Your task to perform on an android device: Show the shopping cart on ebay. Add "razer thresher" to the cart on ebay, then select checkout. Image 0: 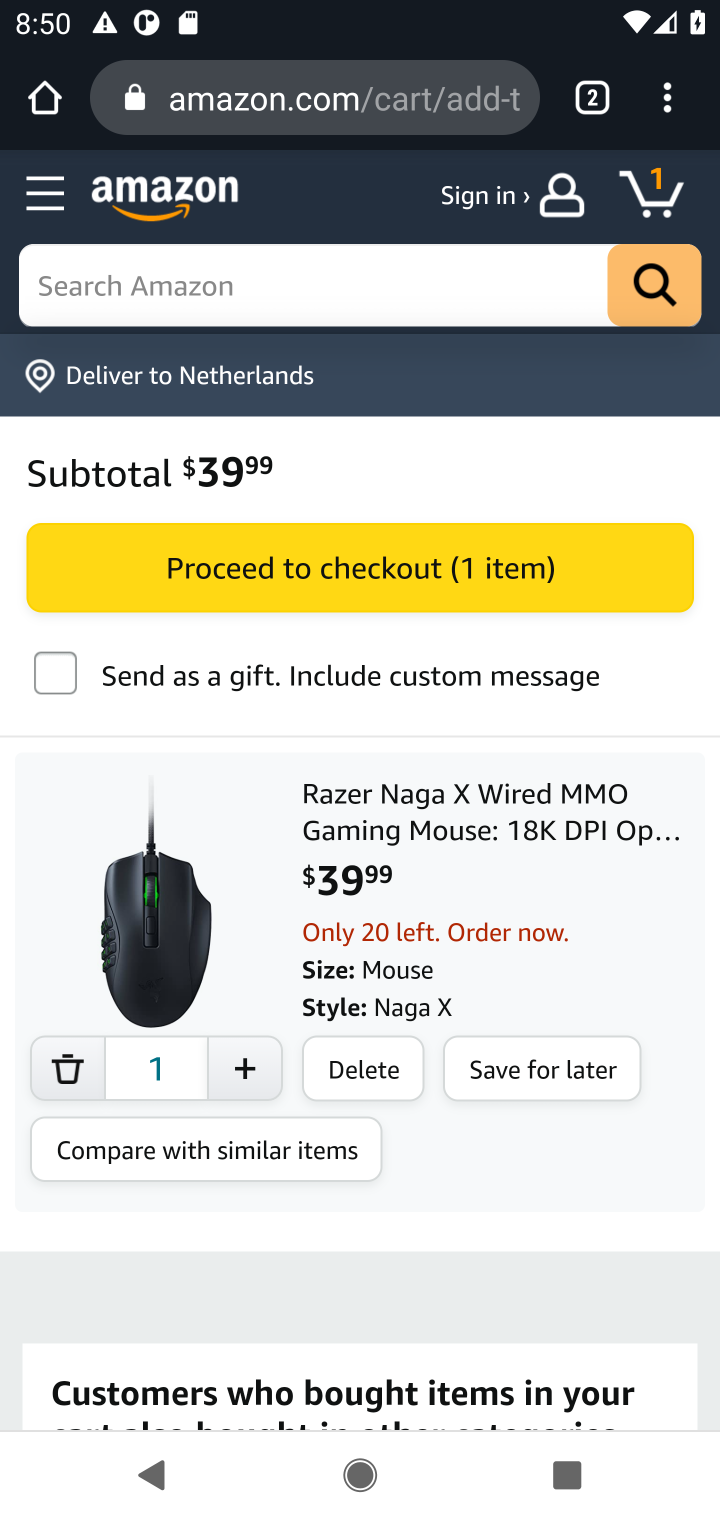
Step 0: click (250, 95)
Your task to perform on an android device: Show the shopping cart on ebay. Add "razer thresher" to the cart on ebay, then select checkout. Image 1: 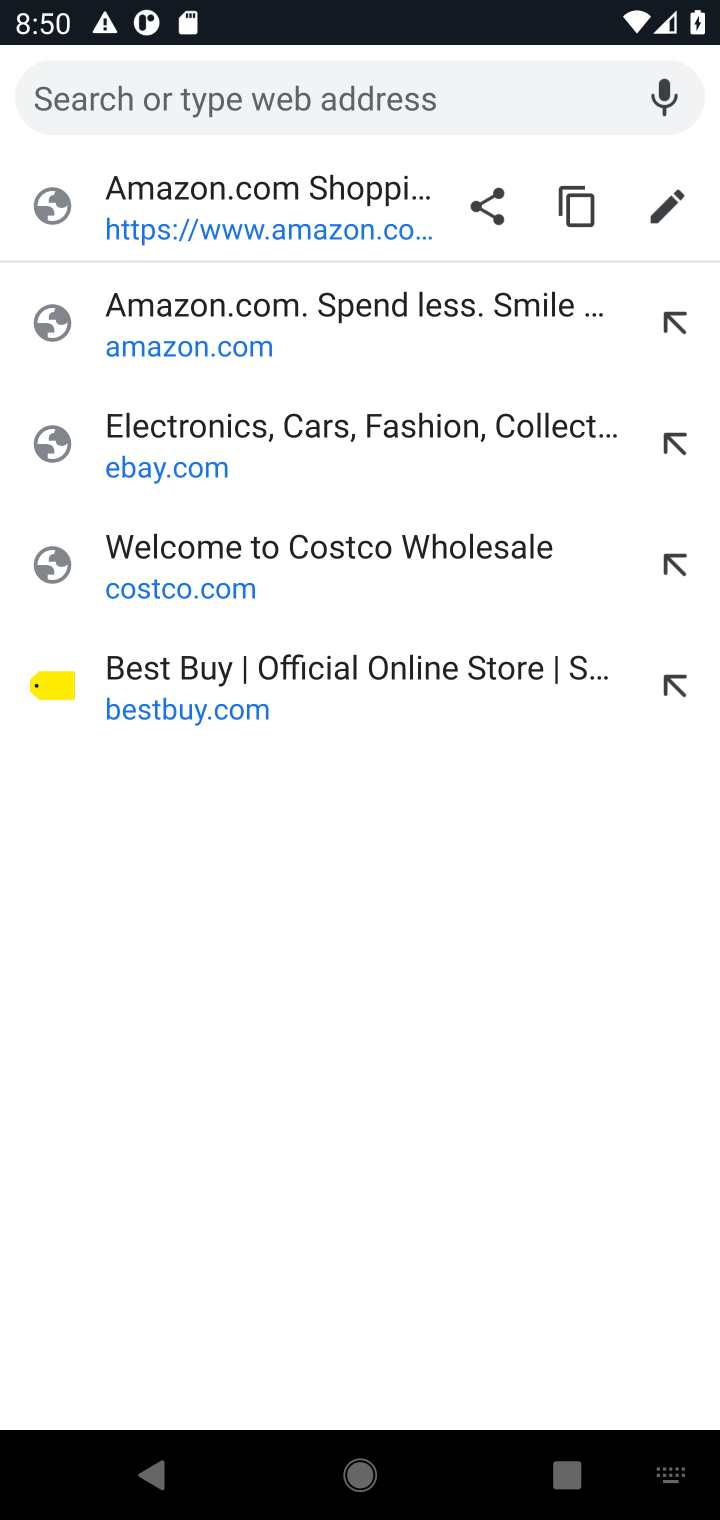
Step 1: click (158, 453)
Your task to perform on an android device: Show the shopping cart on ebay. Add "razer thresher" to the cart on ebay, then select checkout. Image 2: 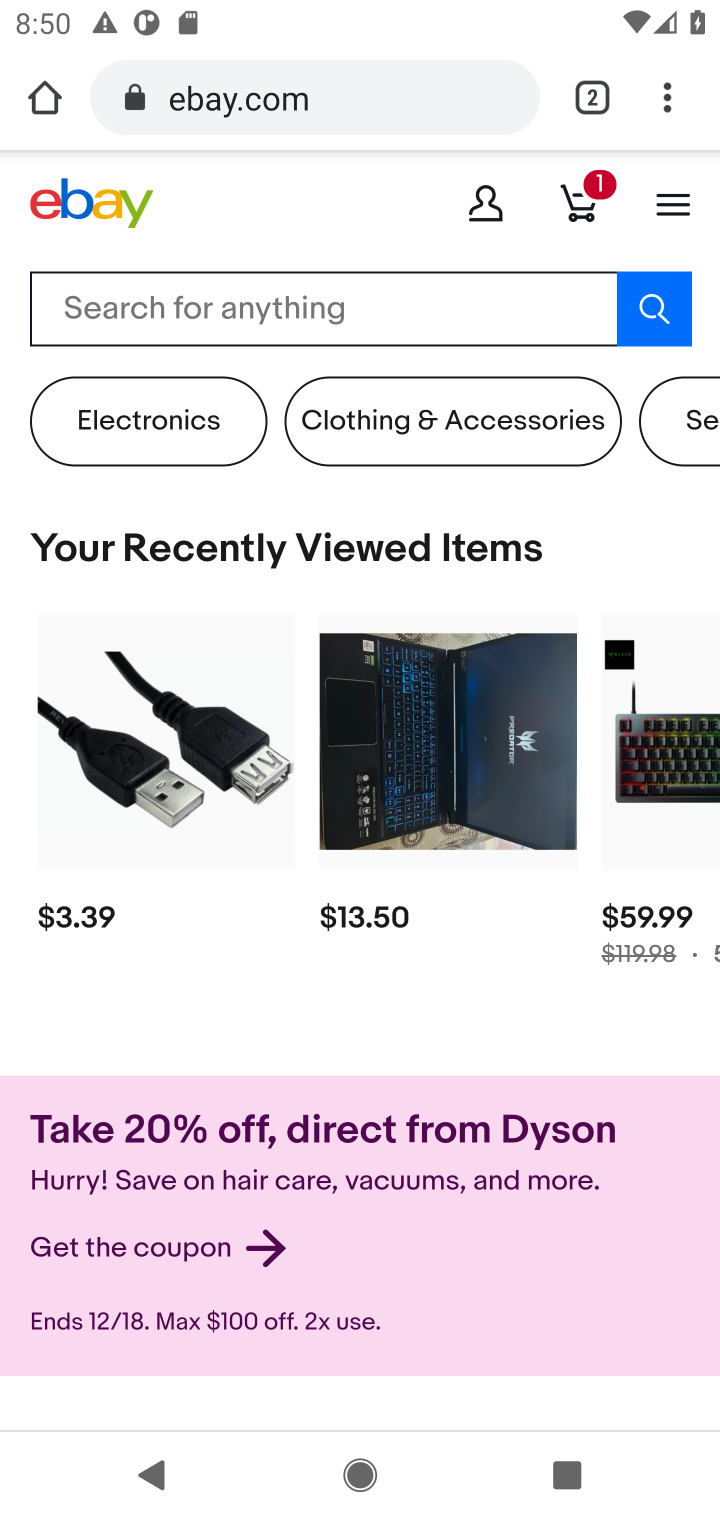
Step 2: click (586, 199)
Your task to perform on an android device: Show the shopping cart on ebay. Add "razer thresher" to the cart on ebay, then select checkout. Image 3: 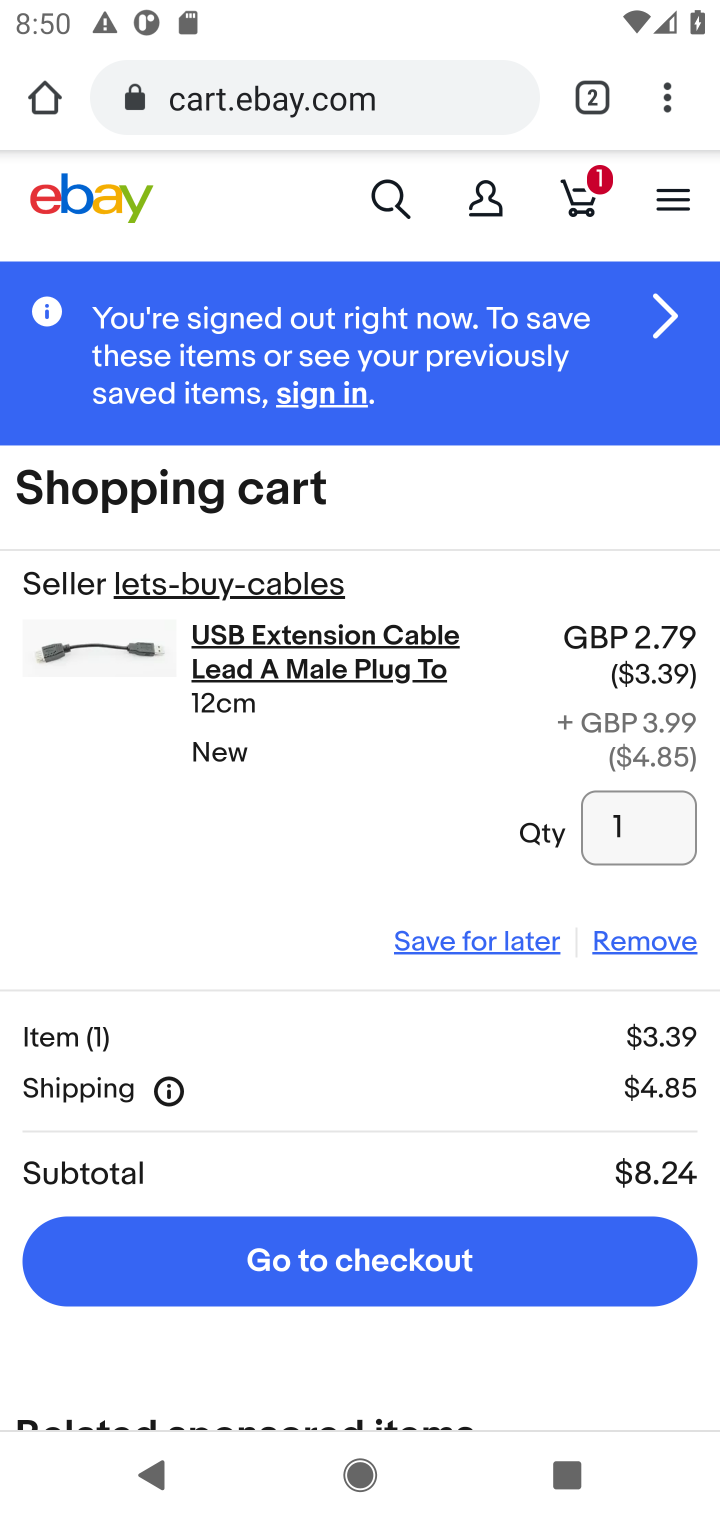
Step 3: click (383, 203)
Your task to perform on an android device: Show the shopping cart on ebay. Add "razer thresher" to the cart on ebay, then select checkout. Image 4: 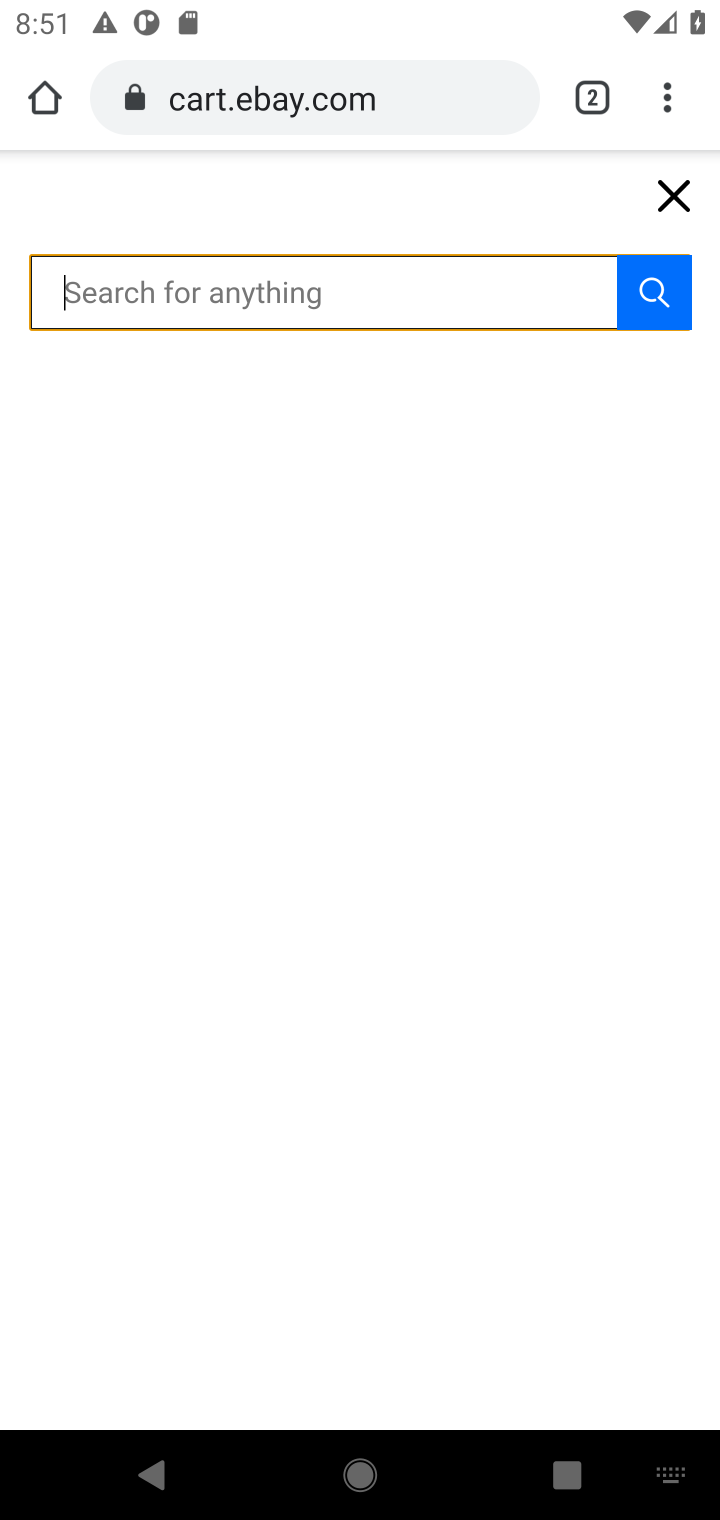
Step 4: type "razer thresher"
Your task to perform on an android device: Show the shopping cart on ebay. Add "razer thresher" to the cart on ebay, then select checkout. Image 5: 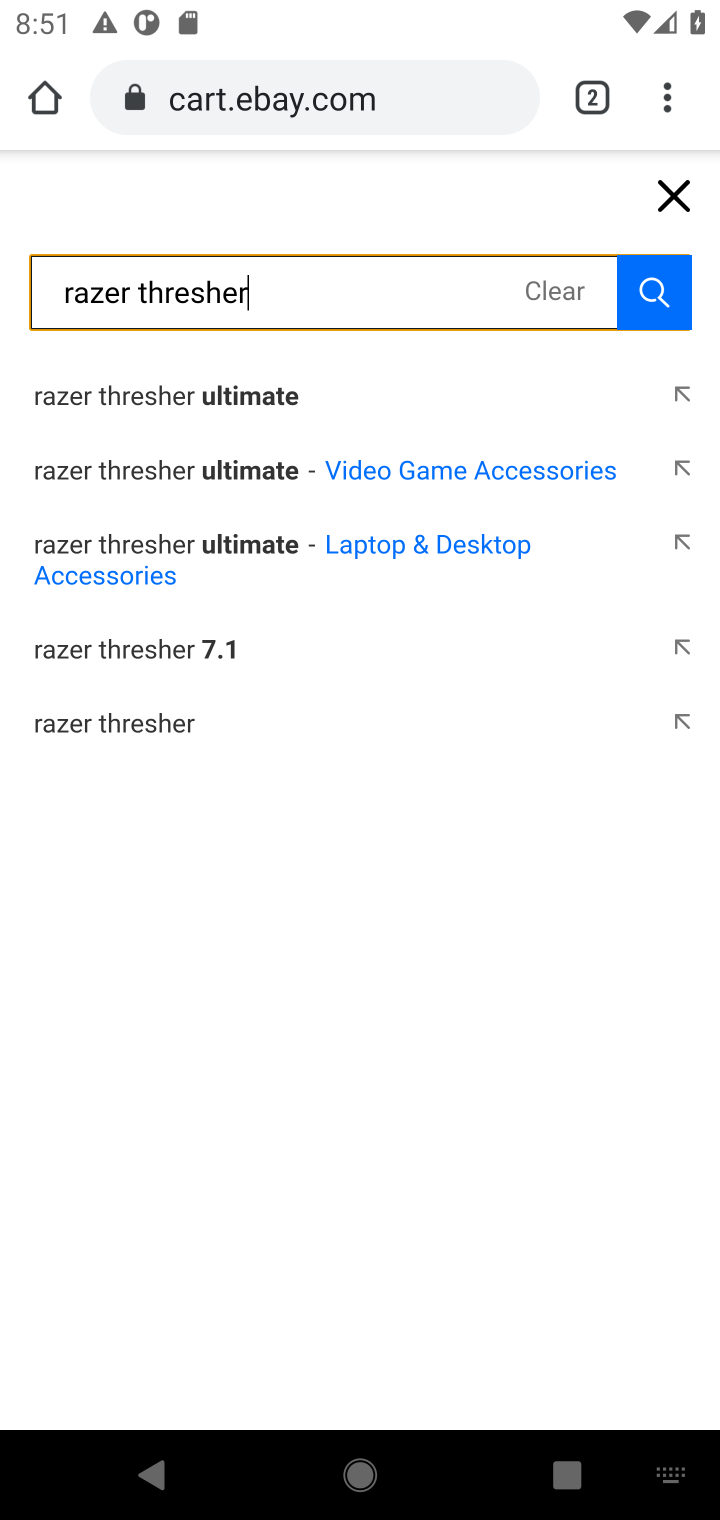
Step 5: click (149, 736)
Your task to perform on an android device: Show the shopping cart on ebay. Add "razer thresher" to the cart on ebay, then select checkout. Image 6: 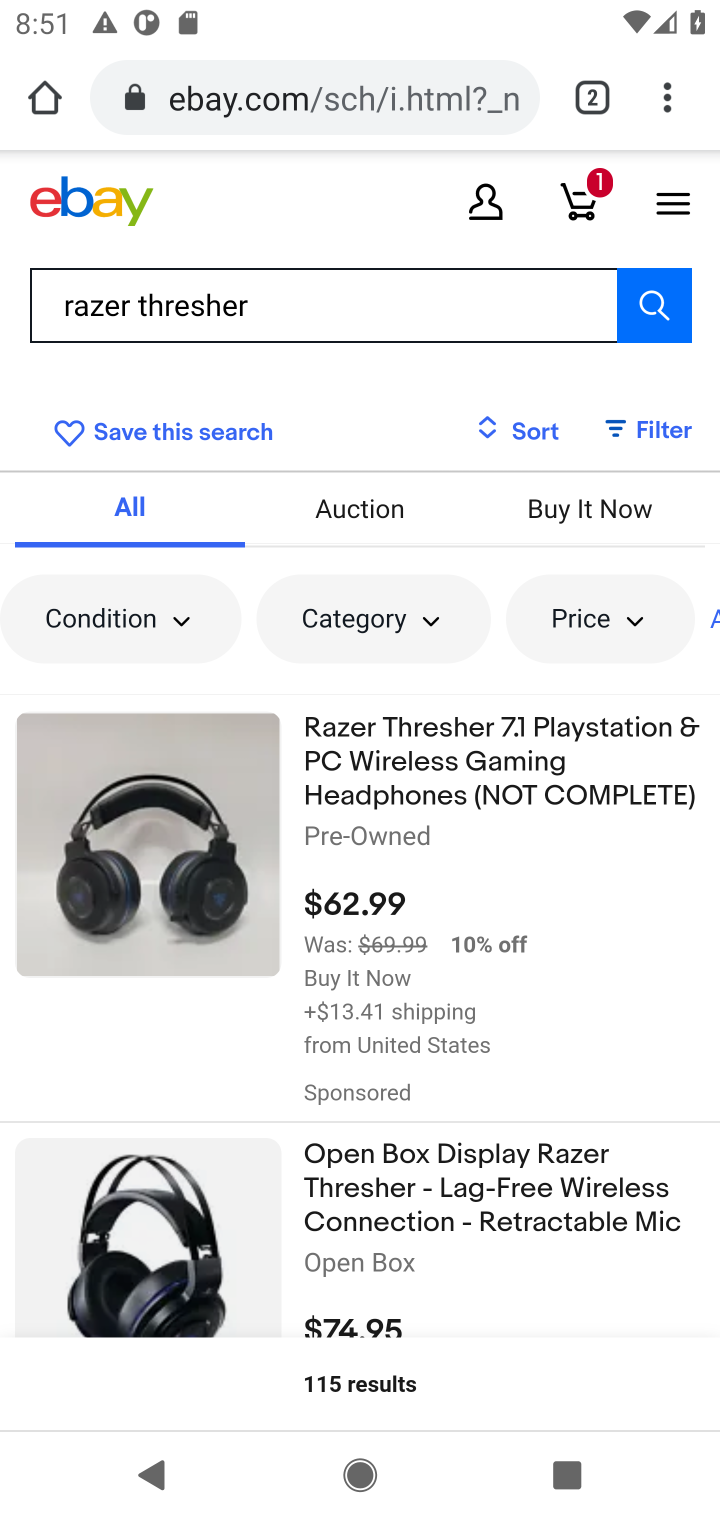
Step 6: click (361, 769)
Your task to perform on an android device: Show the shopping cart on ebay. Add "razer thresher" to the cart on ebay, then select checkout. Image 7: 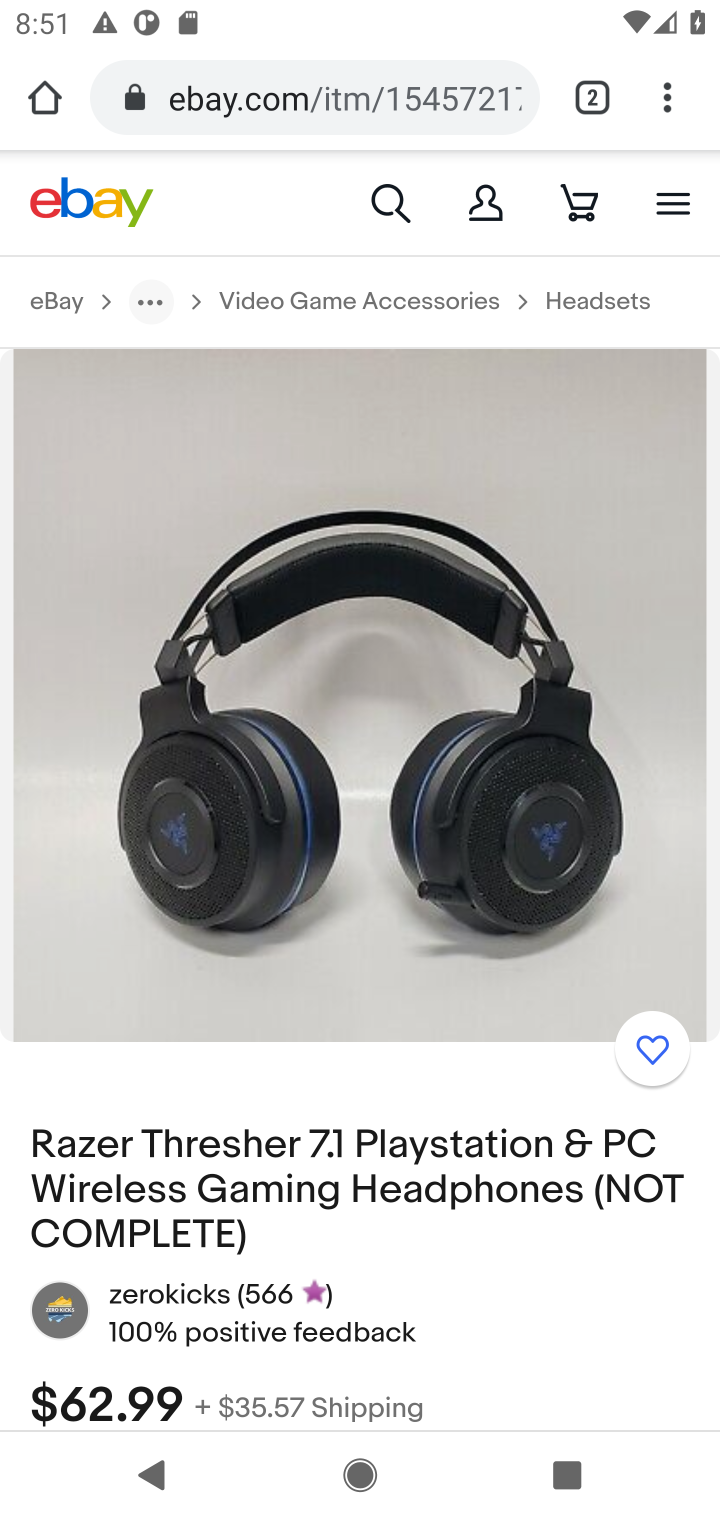
Step 7: drag from (323, 1142) to (295, 304)
Your task to perform on an android device: Show the shopping cart on ebay. Add "razer thresher" to the cart on ebay, then select checkout. Image 8: 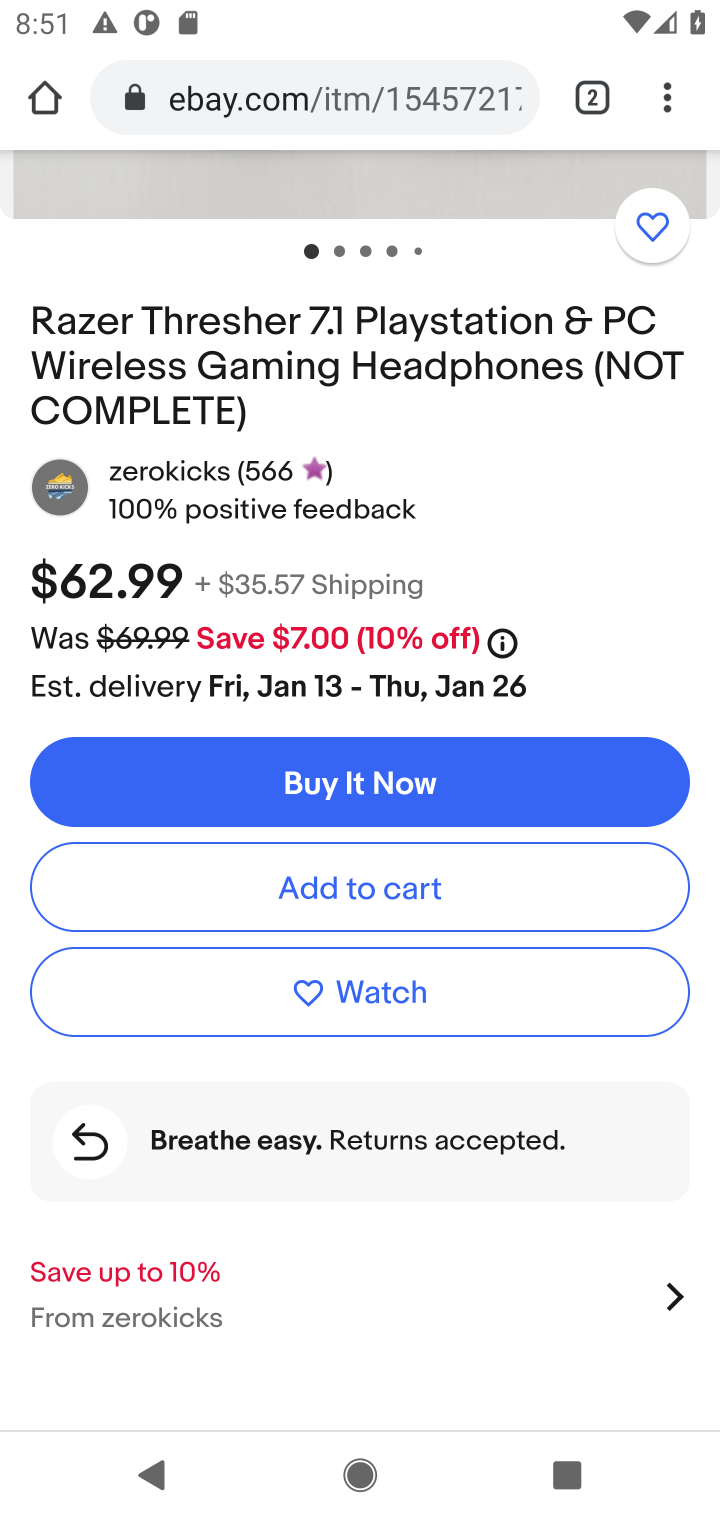
Step 8: click (337, 889)
Your task to perform on an android device: Show the shopping cart on ebay. Add "razer thresher" to the cart on ebay, then select checkout. Image 9: 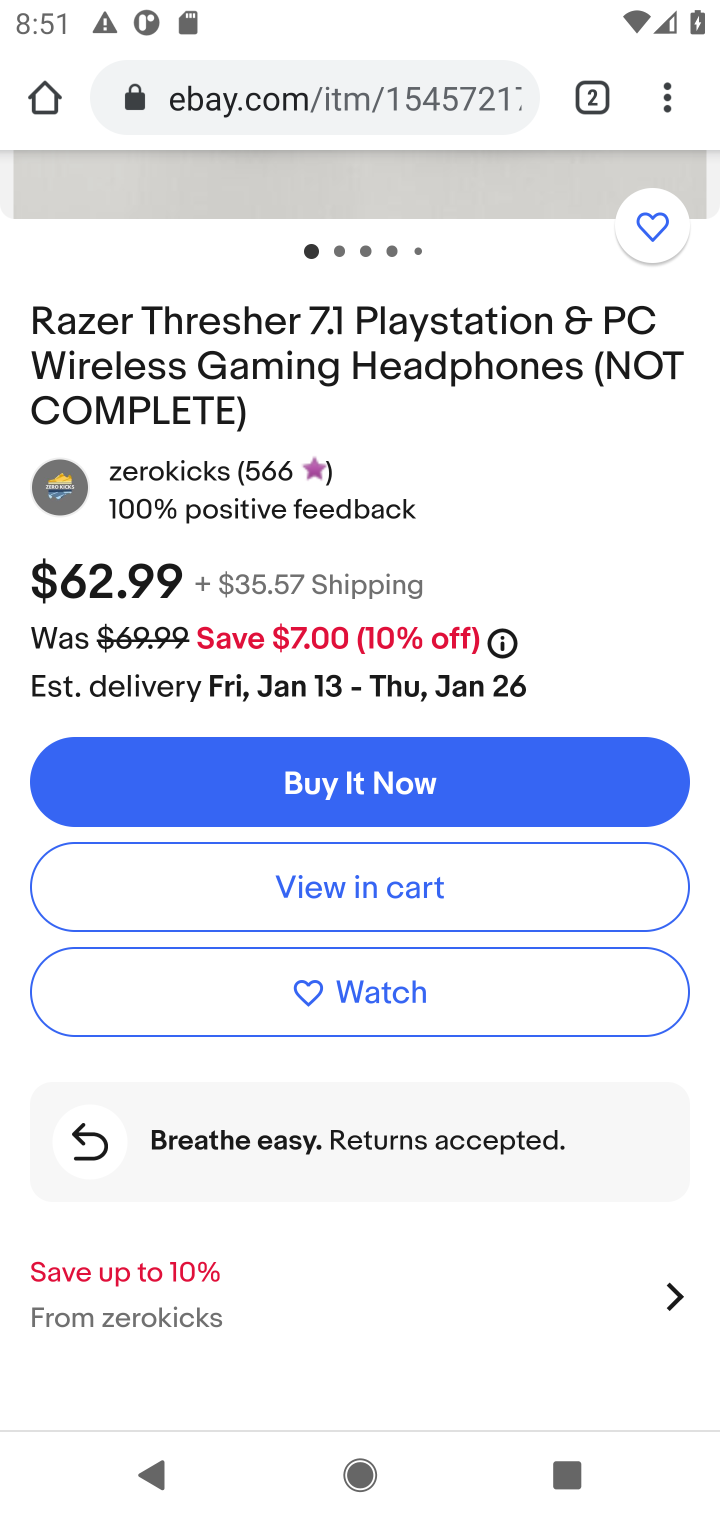
Step 9: click (337, 889)
Your task to perform on an android device: Show the shopping cart on ebay. Add "razer thresher" to the cart on ebay, then select checkout. Image 10: 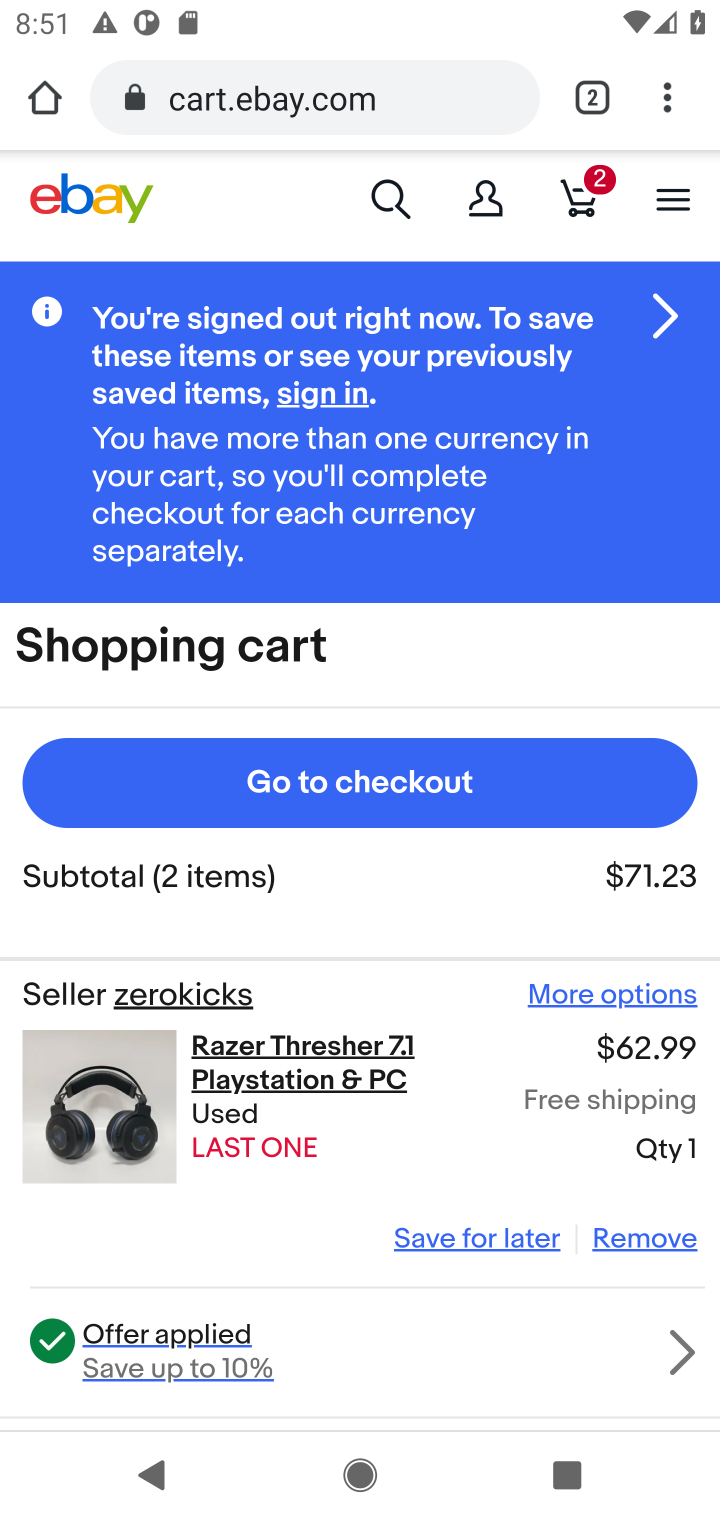
Step 10: click (331, 805)
Your task to perform on an android device: Show the shopping cart on ebay. Add "razer thresher" to the cart on ebay, then select checkout. Image 11: 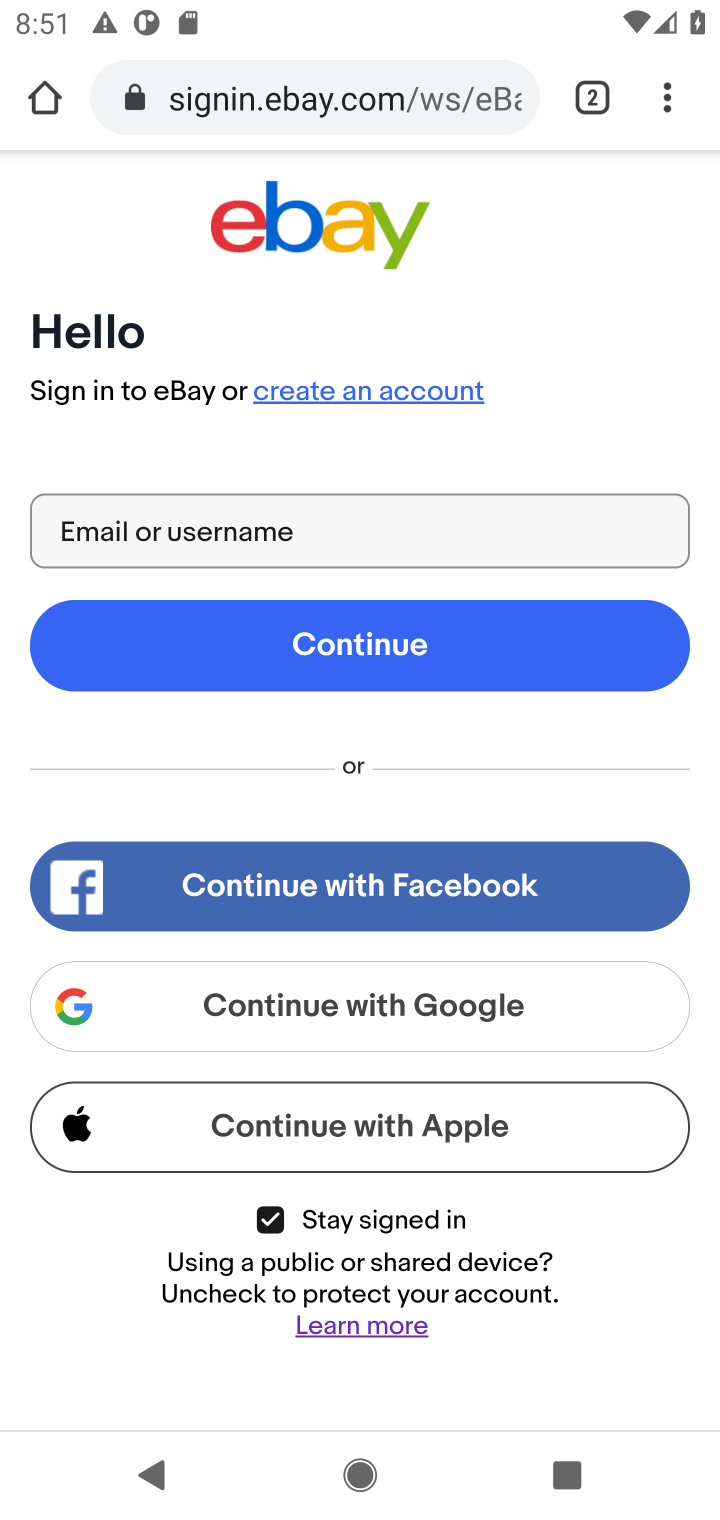
Step 11: task complete